Your task to perform on an android device: clear all cookies in the chrome app Image 0: 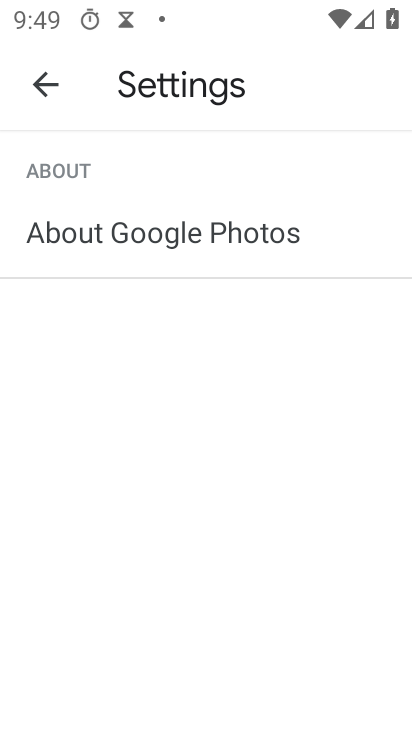
Step 0: press home button
Your task to perform on an android device: clear all cookies in the chrome app Image 1: 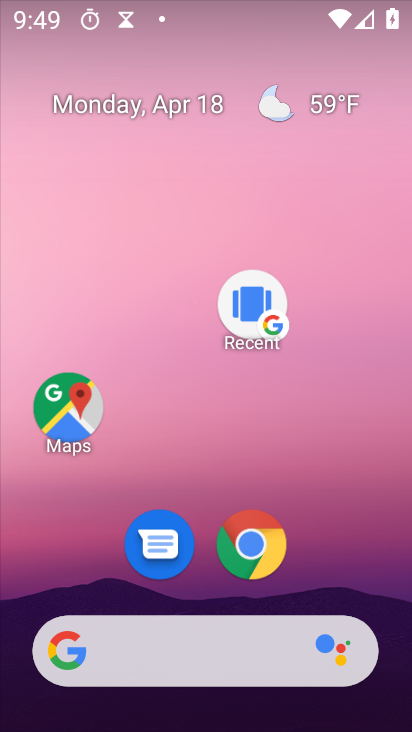
Step 1: drag from (375, 551) to (316, 157)
Your task to perform on an android device: clear all cookies in the chrome app Image 2: 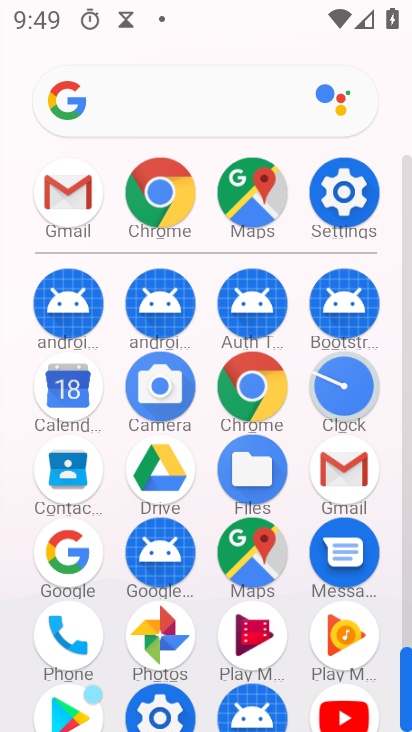
Step 2: click (259, 381)
Your task to perform on an android device: clear all cookies in the chrome app Image 3: 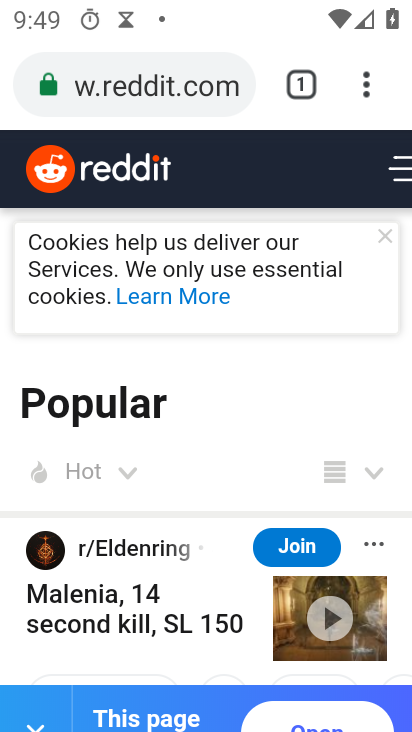
Step 3: drag from (366, 102) to (264, 465)
Your task to perform on an android device: clear all cookies in the chrome app Image 4: 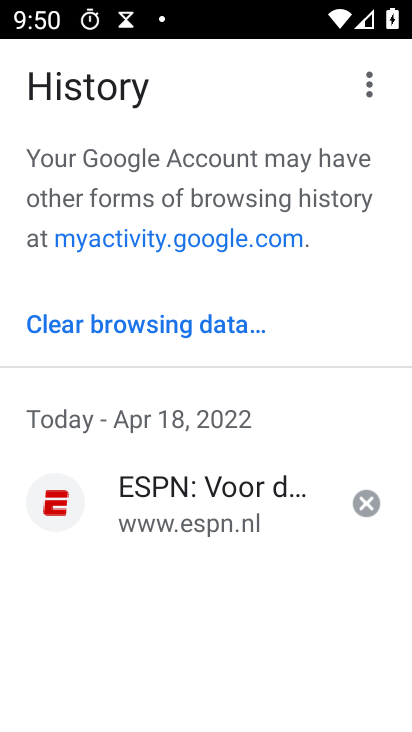
Step 4: click (218, 328)
Your task to perform on an android device: clear all cookies in the chrome app Image 5: 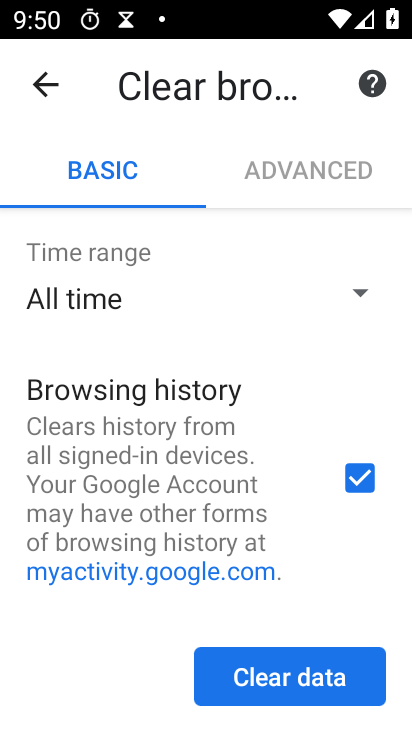
Step 5: drag from (304, 565) to (272, 180)
Your task to perform on an android device: clear all cookies in the chrome app Image 6: 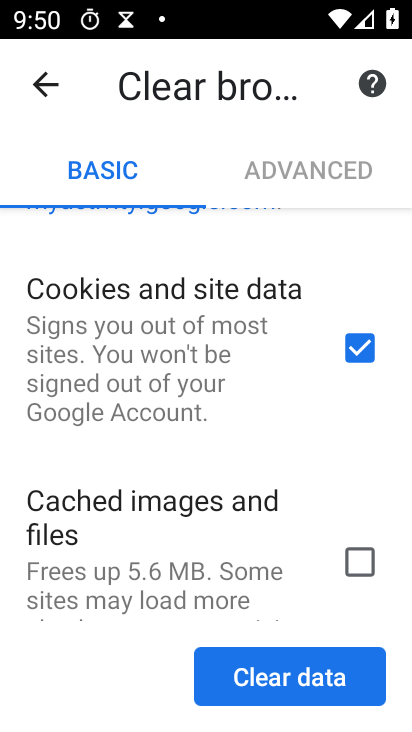
Step 6: click (352, 671)
Your task to perform on an android device: clear all cookies in the chrome app Image 7: 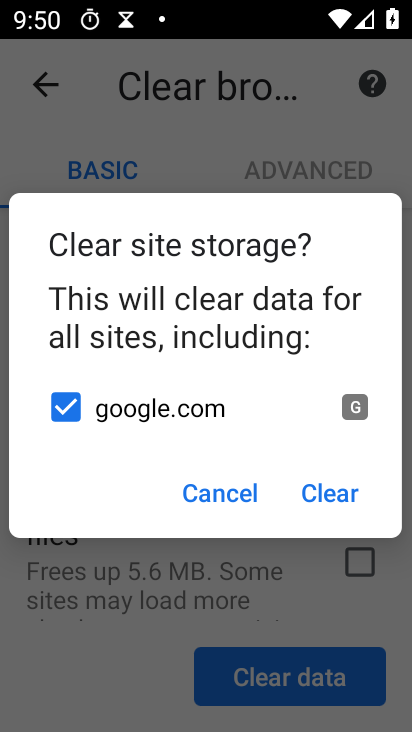
Step 7: click (338, 487)
Your task to perform on an android device: clear all cookies in the chrome app Image 8: 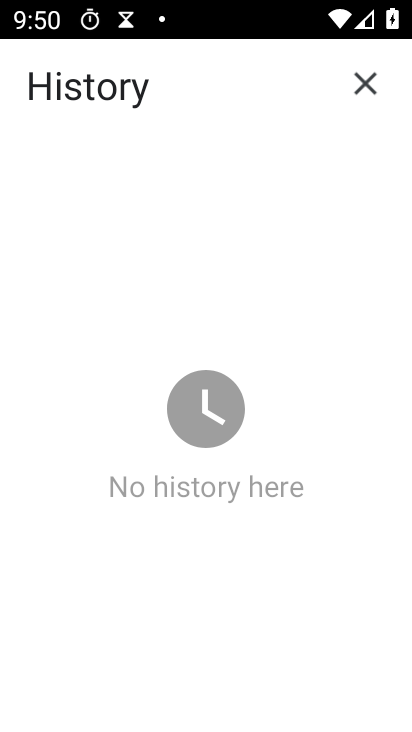
Step 8: task complete